Your task to perform on an android device: toggle javascript in the chrome app Image 0: 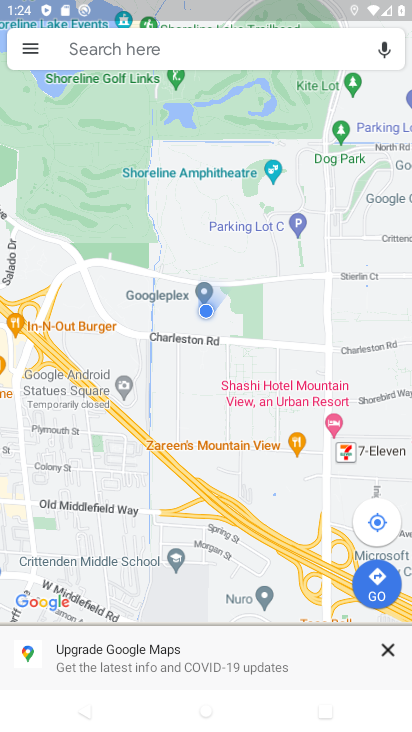
Step 0: press home button
Your task to perform on an android device: toggle javascript in the chrome app Image 1: 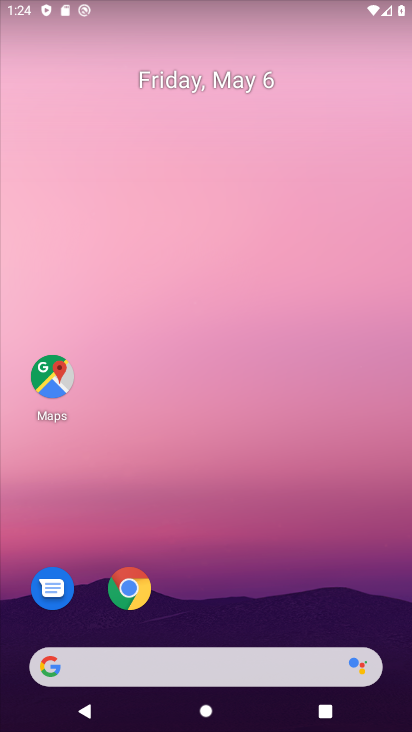
Step 1: drag from (363, 599) to (305, 70)
Your task to perform on an android device: toggle javascript in the chrome app Image 2: 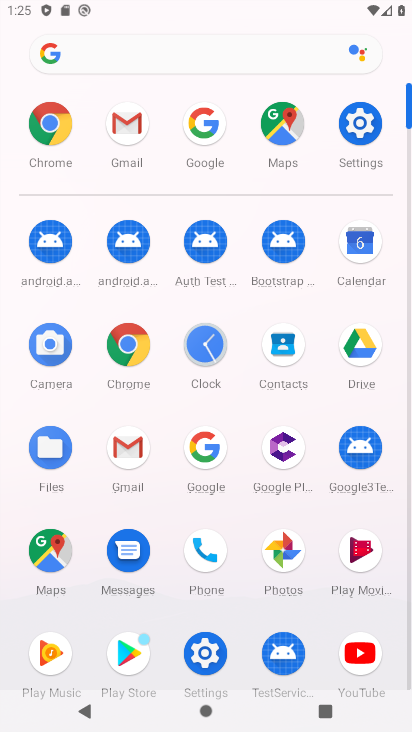
Step 2: click (103, 360)
Your task to perform on an android device: toggle javascript in the chrome app Image 3: 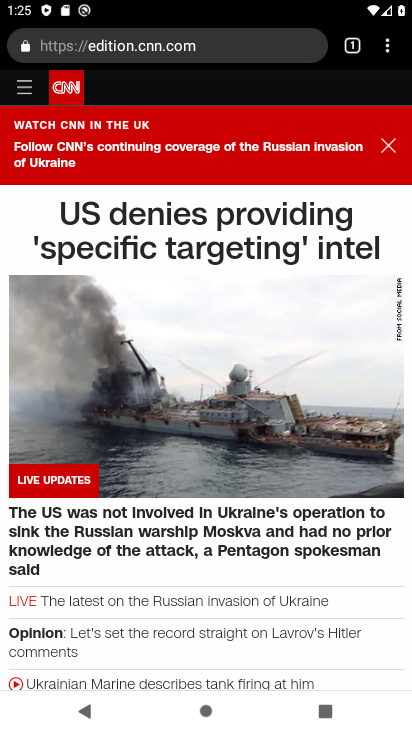
Step 3: drag from (385, 55) to (256, 499)
Your task to perform on an android device: toggle javascript in the chrome app Image 4: 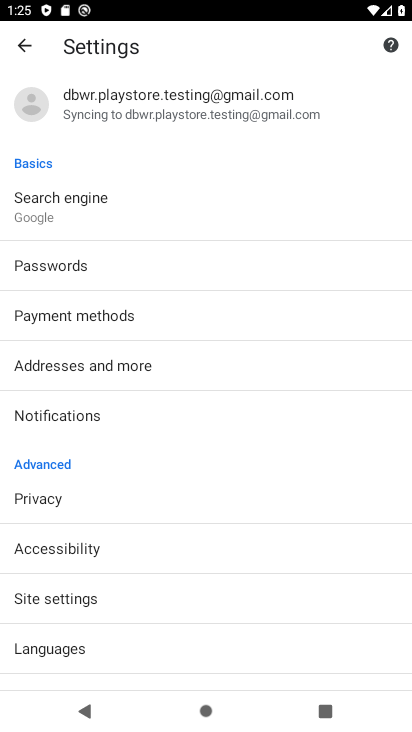
Step 4: drag from (232, 588) to (245, 282)
Your task to perform on an android device: toggle javascript in the chrome app Image 5: 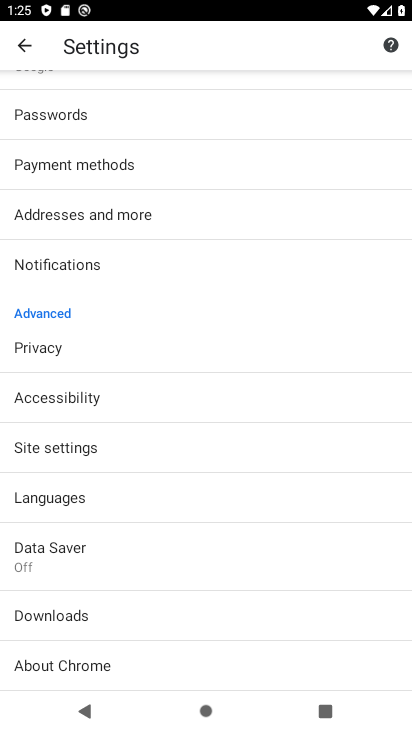
Step 5: click (89, 454)
Your task to perform on an android device: toggle javascript in the chrome app Image 6: 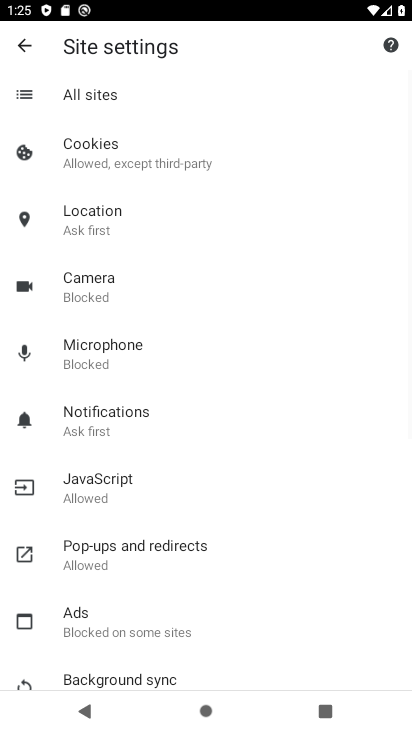
Step 6: drag from (268, 610) to (269, 316)
Your task to perform on an android device: toggle javascript in the chrome app Image 7: 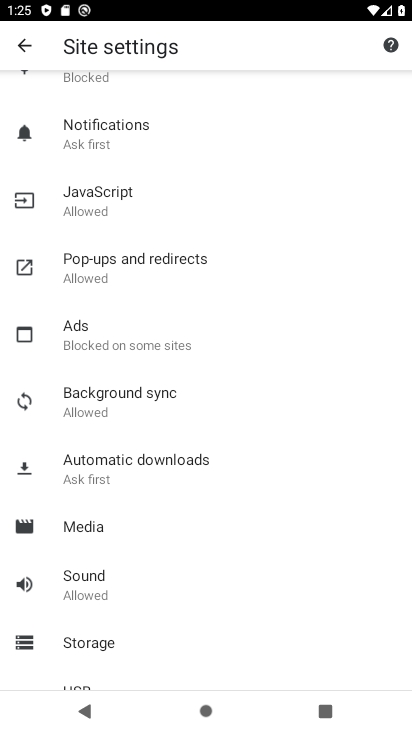
Step 7: click (137, 207)
Your task to perform on an android device: toggle javascript in the chrome app Image 8: 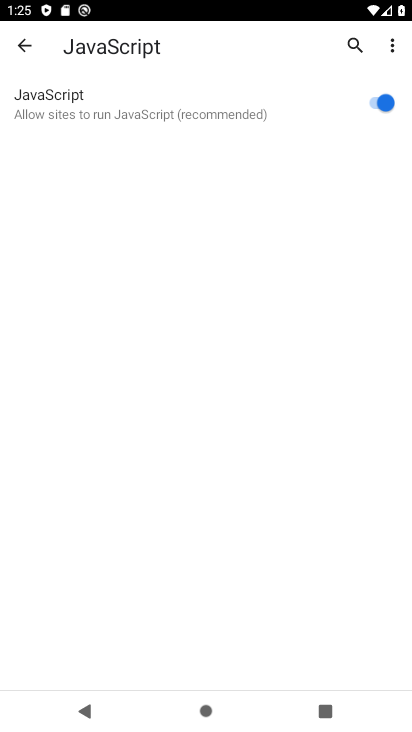
Step 8: click (378, 100)
Your task to perform on an android device: toggle javascript in the chrome app Image 9: 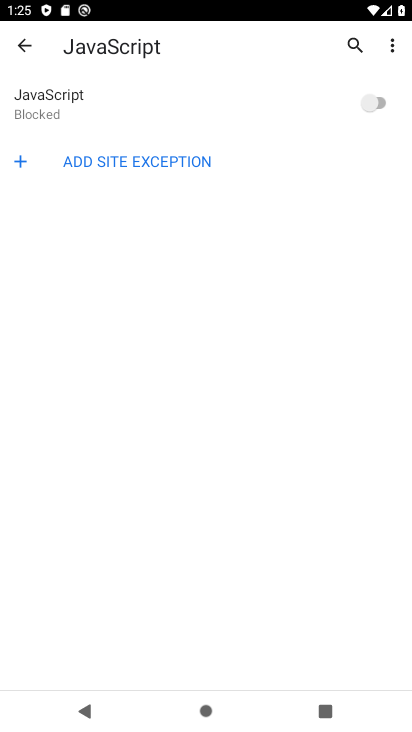
Step 9: task complete